Your task to perform on an android device: change the clock display to show seconds Image 0: 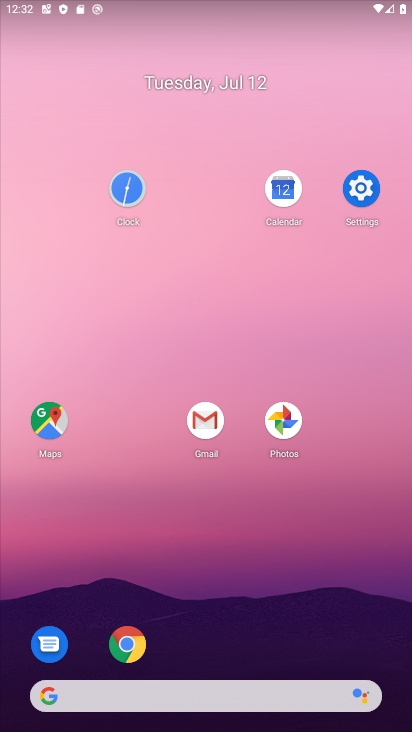
Step 0: click (116, 188)
Your task to perform on an android device: change the clock display to show seconds Image 1: 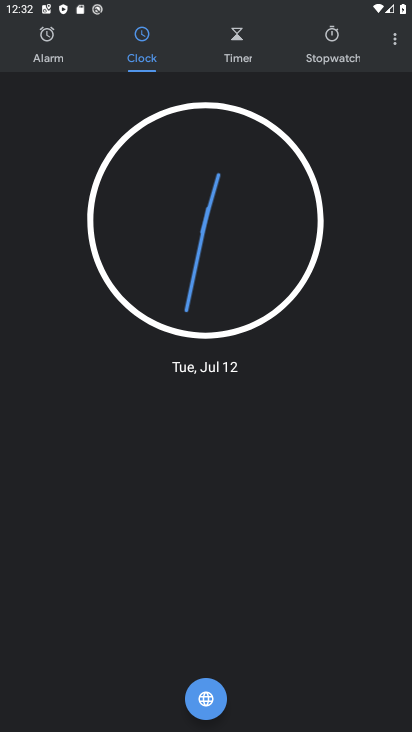
Step 1: click (389, 46)
Your task to perform on an android device: change the clock display to show seconds Image 2: 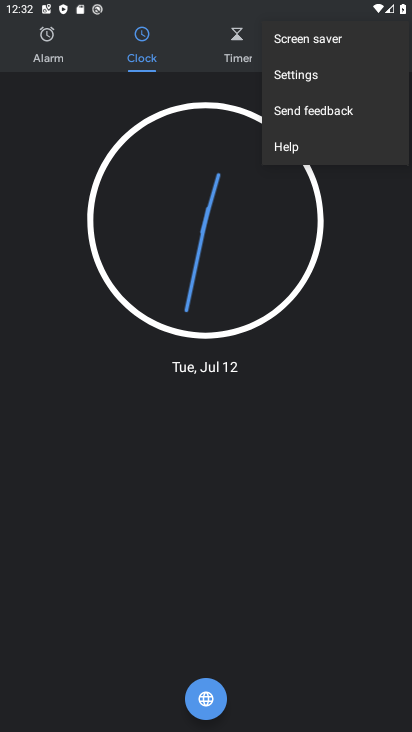
Step 2: click (317, 82)
Your task to perform on an android device: change the clock display to show seconds Image 3: 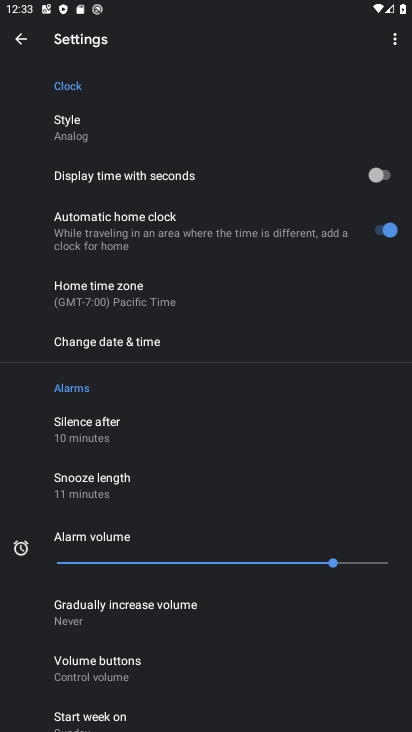
Step 3: click (378, 169)
Your task to perform on an android device: change the clock display to show seconds Image 4: 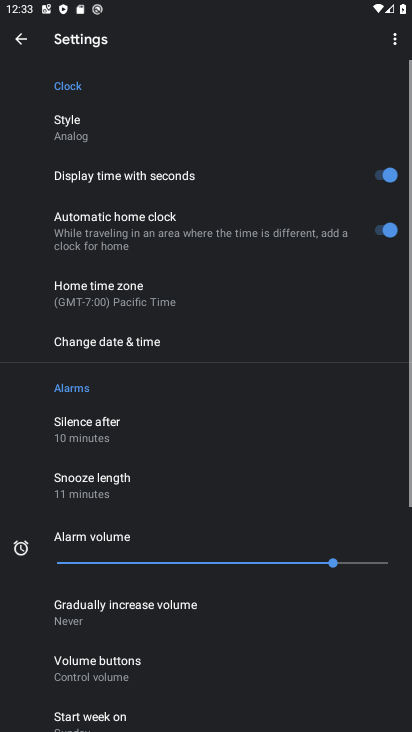
Step 4: task complete